Your task to perform on an android device: delete the emails in spam in the gmail app Image 0: 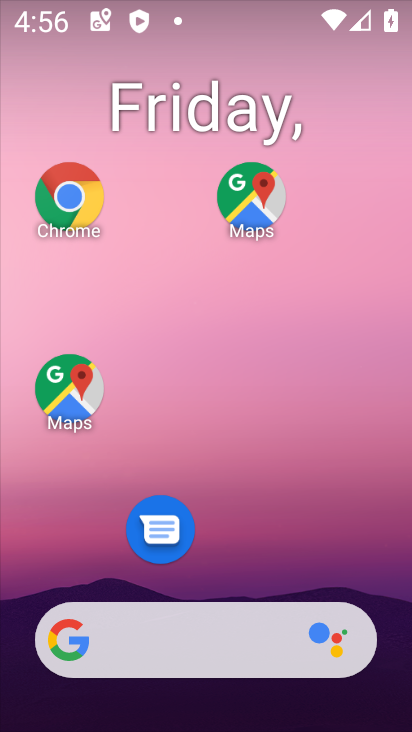
Step 0: drag from (270, 557) to (236, 34)
Your task to perform on an android device: delete the emails in spam in the gmail app Image 1: 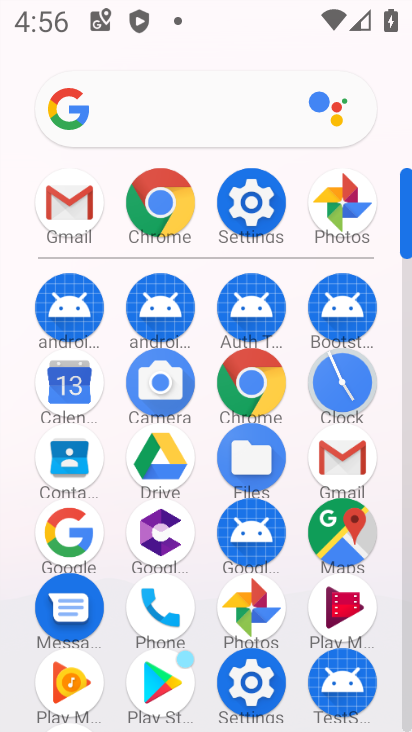
Step 1: click (71, 219)
Your task to perform on an android device: delete the emails in spam in the gmail app Image 2: 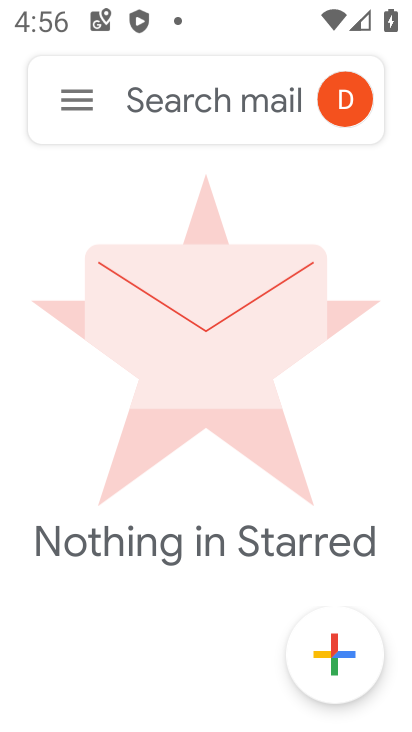
Step 2: click (82, 100)
Your task to perform on an android device: delete the emails in spam in the gmail app Image 3: 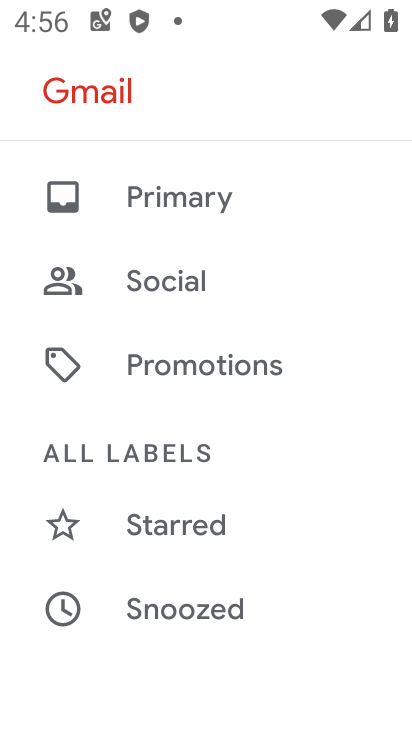
Step 3: click (197, 477)
Your task to perform on an android device: delete the emails in spam in the gmail app Image 4: 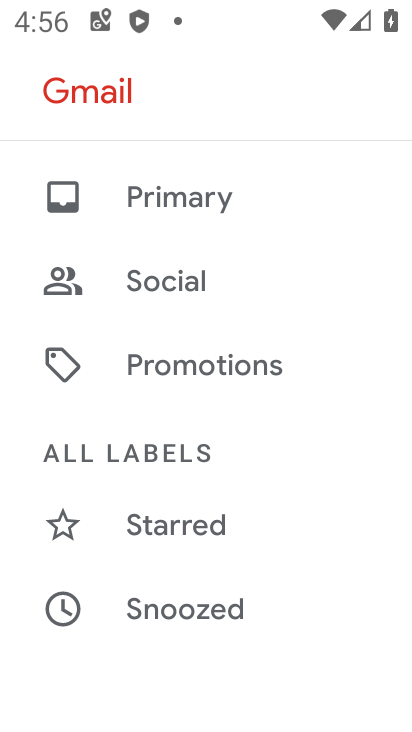
Step 4: drag from (220, 571) to (298, 287)
Your task to perform on an android device: delete the emails in spam in the gmail app Image 5: 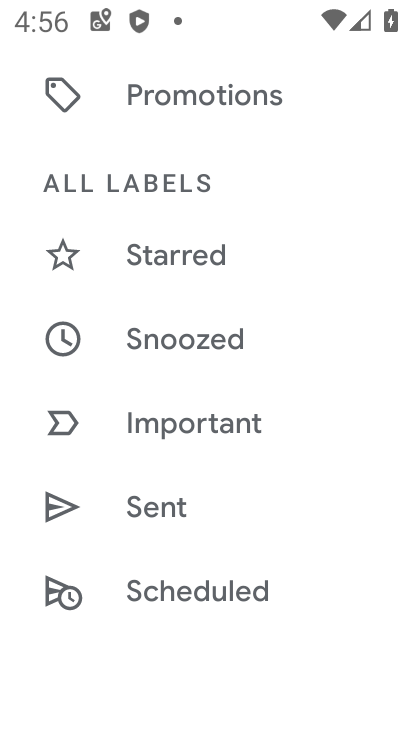
Step 5: drag from (239, 527) to (285, 203)
Your task to perform on an android device: delete the emails in spam in the gmail app Image 6: 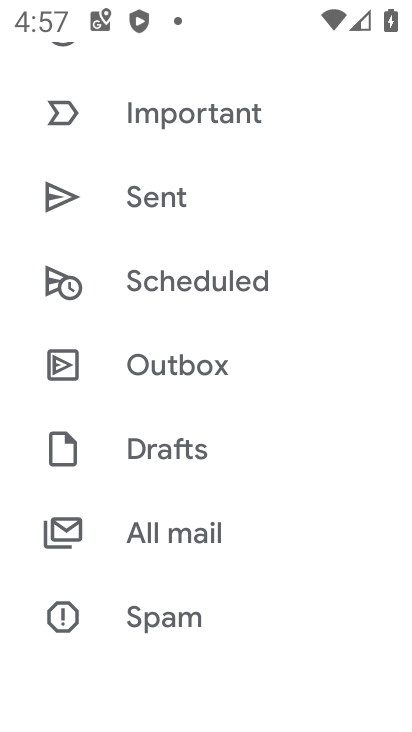
Step 6: click (158, 626)
Your task to perform on an android device: delete the emails in spam in the gmail app Image 7: 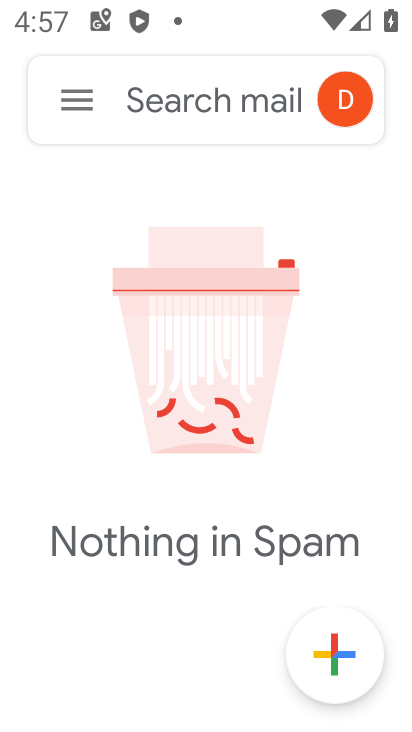
Step 7: task complete